Your task to perform on an android device: Open the phone app and click the voicemail tab. Image 0: 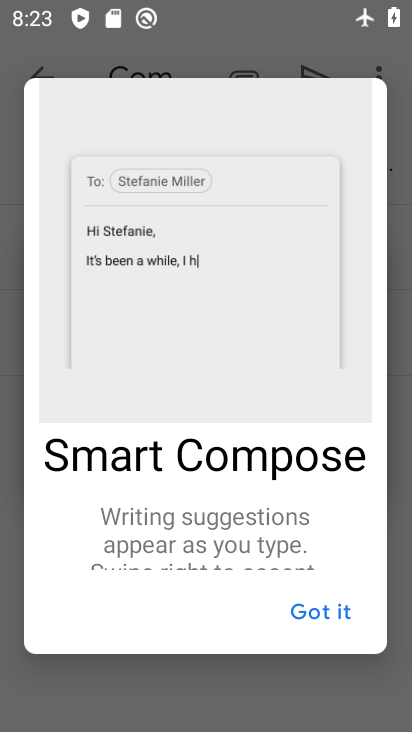
Step 0: press home button
Your task to perform on an android device: Open the phone app and click the voicemail tab. Image 1: 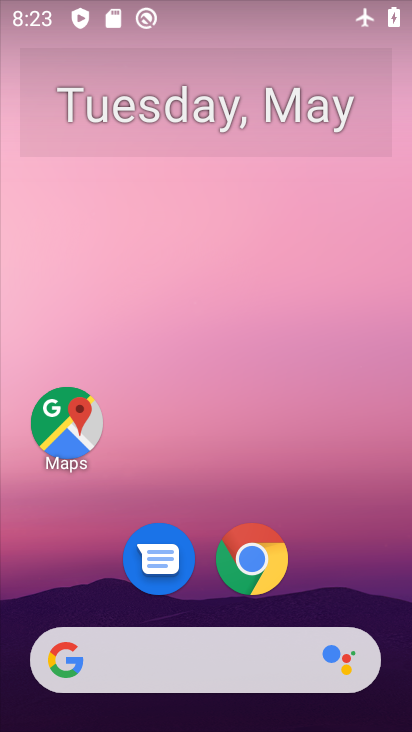
Step 1: drag from (213, 612) to (238, 208)
Your task to perform on an android device: Open the phone app and click the voicemail tab. Image 2: 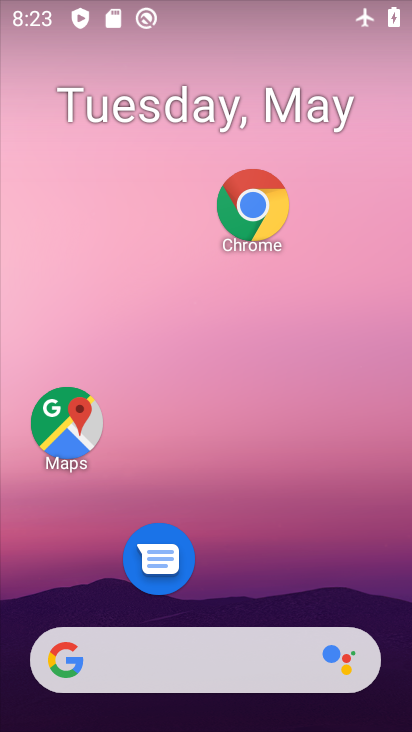
Step 2: drag from (236, 599) to (231, 196)
Your task to perform on an android device: Open the phone app and click the voicemail tab. Image 3: 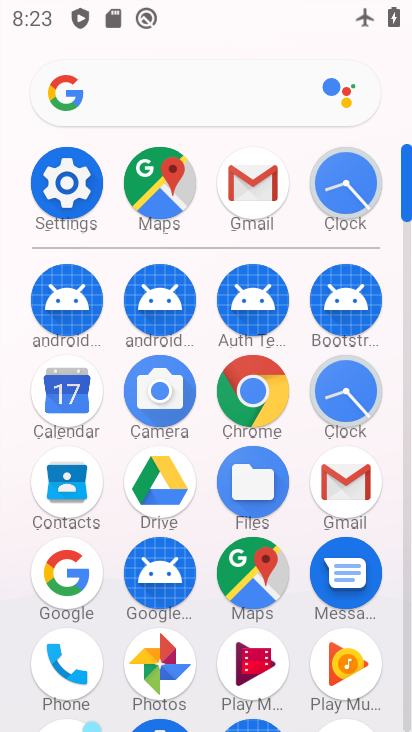
Step 3: click (55, 665)
Your task to perform on an android device: Open the phone app and click the voicemail tab. Image 4: 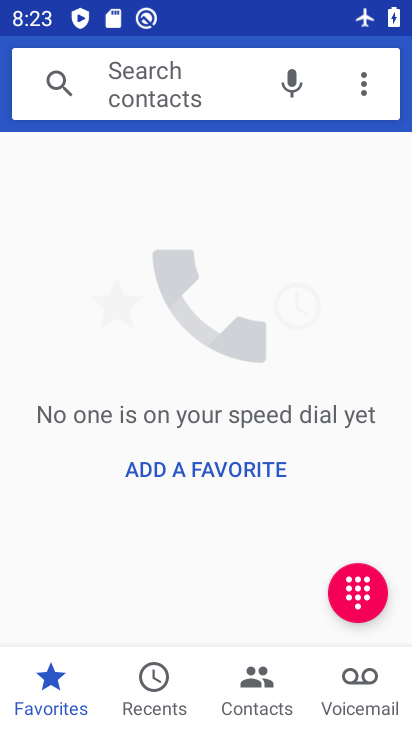
Step 4: click (344, 682)
Your task to perform on an android device: Open the phone app and click the voicemail tab. Image 5: 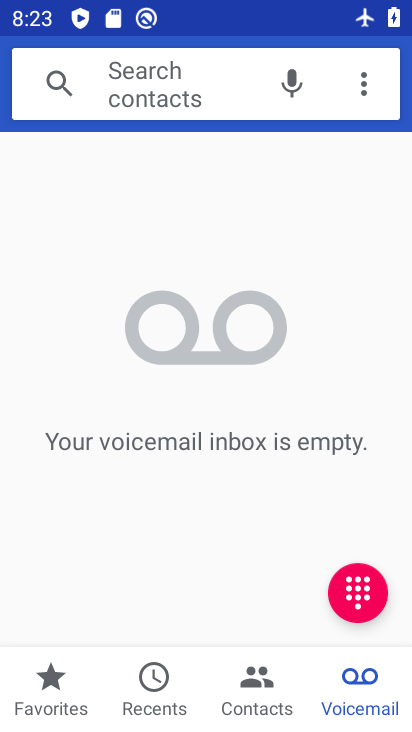
Step 5: task complete